Your task to perform on an android device: Turn off the flashlight Image 0: 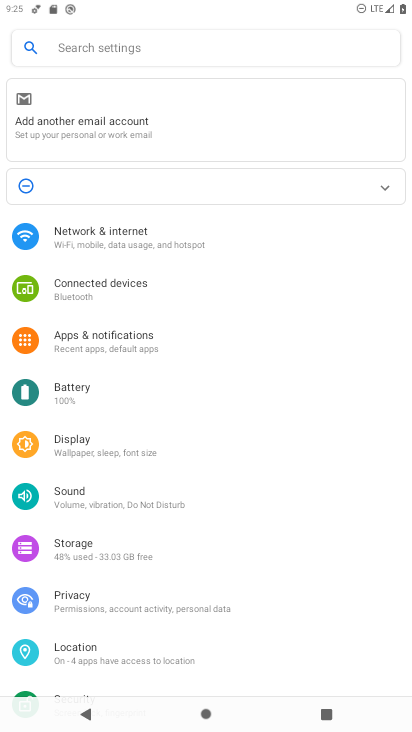
Step 0: click (77, 437)
Your task to perform on an android device: Turn off the flashlight Image 1: 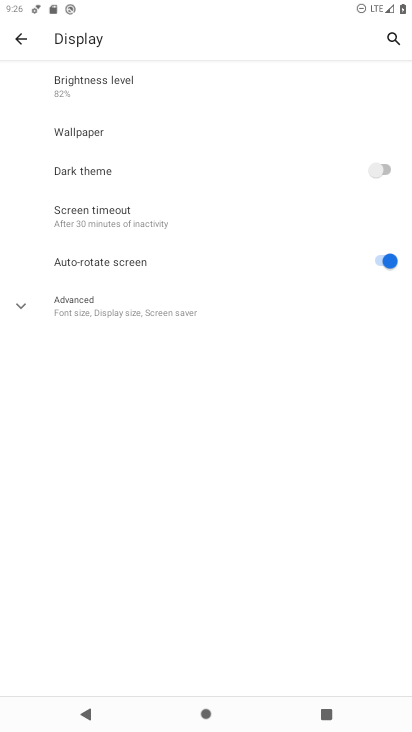
Step 1: task complete